Your task to perform on an android device: Open Chrome and go to the settings page Image 0: 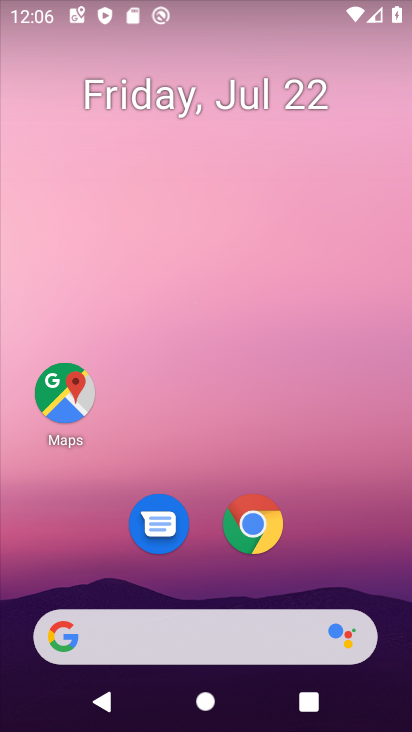
Step 0: click (257, 528)
Your task to perform on an android device: Open Chrome and go to the settings page Image 1: 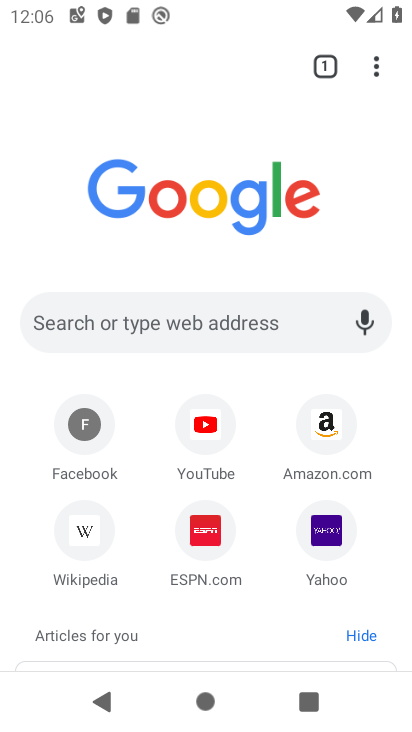
Step 1: click (375, 68)
Your task to perform on an android device: Open Chrome and go to the settings page Image 2: 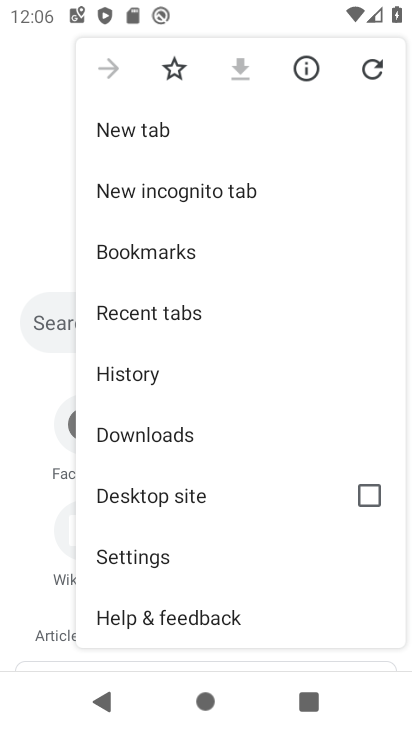
Step 2: click (160, 561)
Your task to perform on an android device: Open Chrome and go to the settings page Image 3: 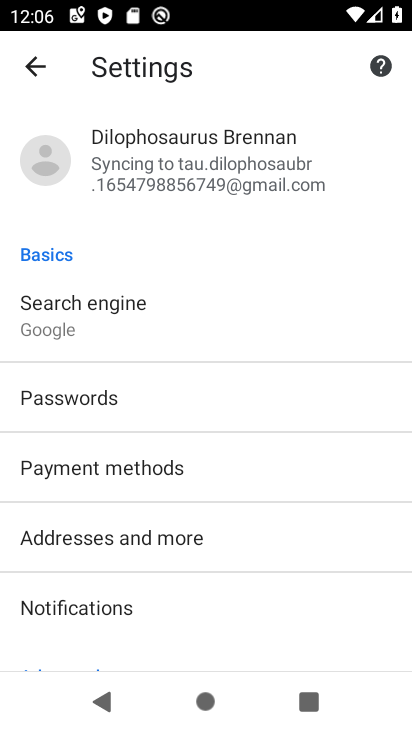
Step 3: task complete